Your task to perform on an android device: Go to Google maps Image 0: 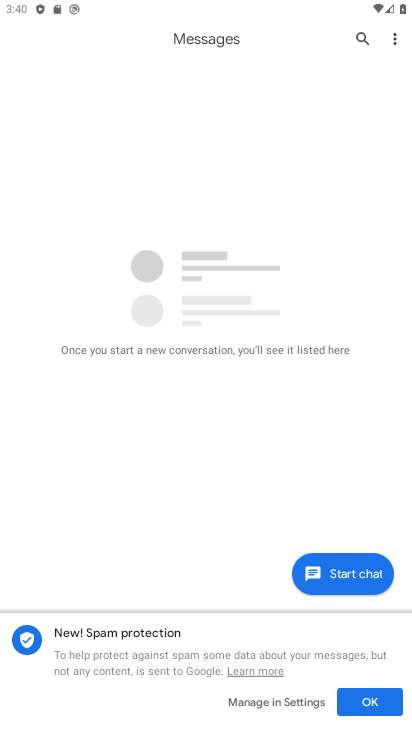
Step 0: press home button
Your task to perform on an android device: Go to Google maps Image 1: 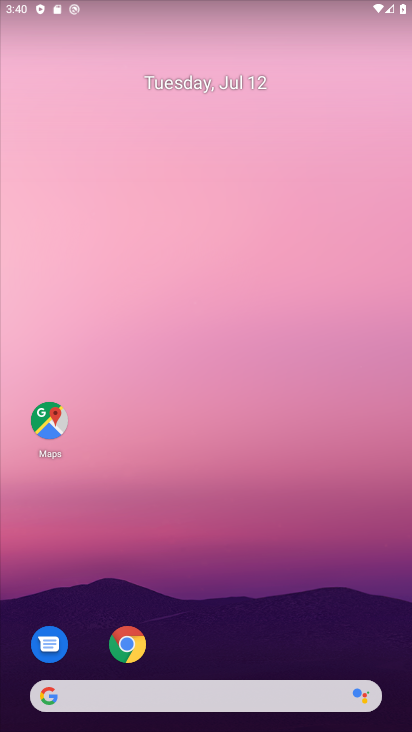
Step 1: drag from (265, 613) to (215, 12)
Your task to perform on an android device: Go to Google maps Image 2: 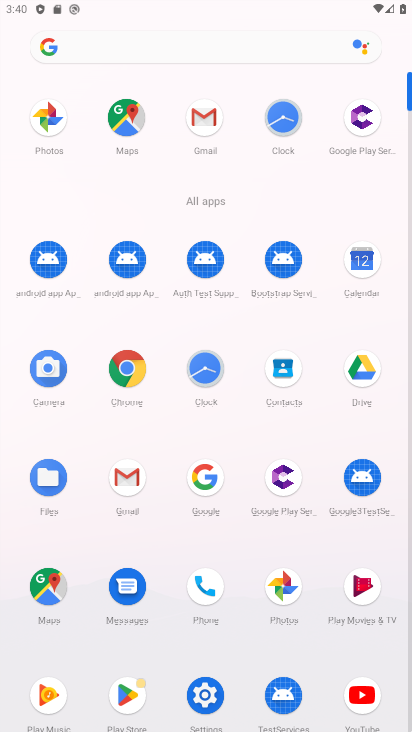
Step 2: click (128, 123)
Your task to perform on an android device: Go to Google maps Image 3: 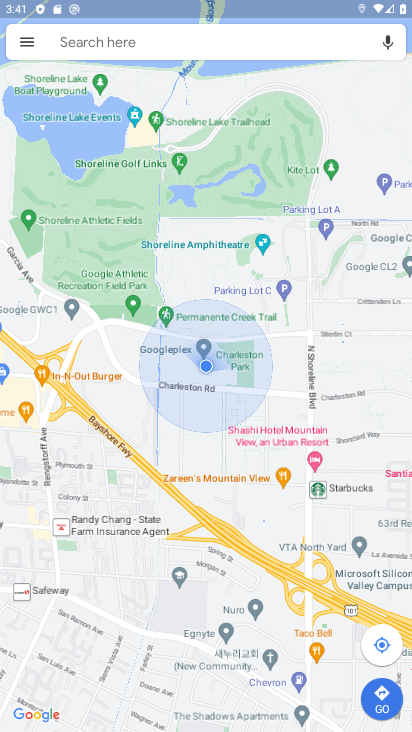
Step 3: click (33, 41)
Your task to perform on an android device: Go to Google maps Image 4: 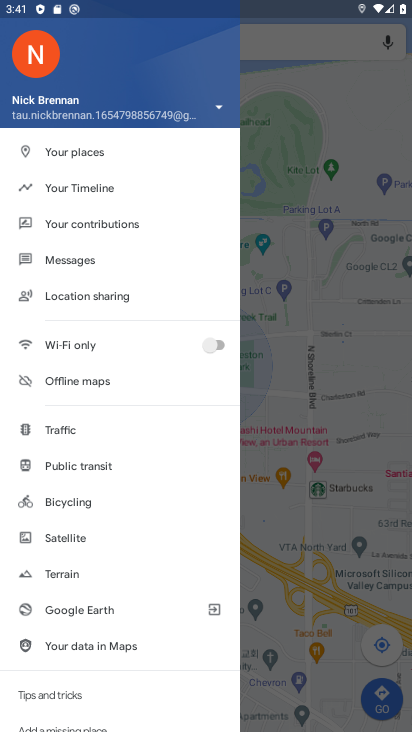
Step 4: task complete